Your task to perform on an android device: read, delete, or share a saved page in the chrome app Image 0: 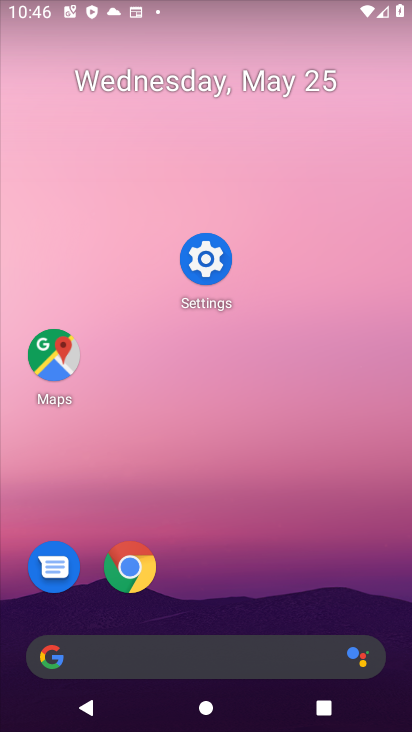
Step 0: click (147, 580)
Your task to perform on an android device: read, delete, or share a saved page in the chrome app Image 1: 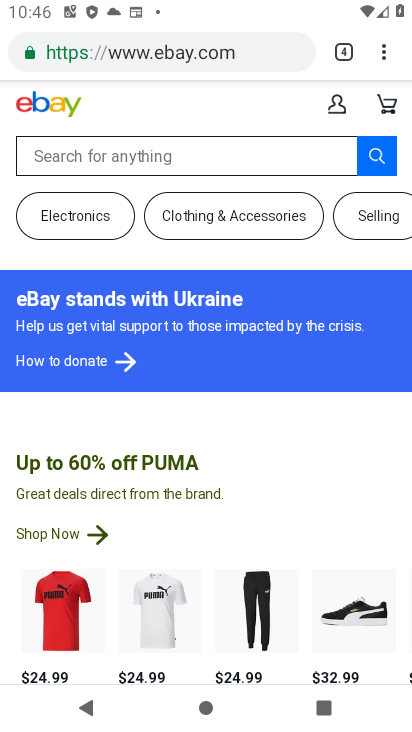
Step 1: click (391, 53)
Your task to perform on an android device: read, delete, or share a saved page in the chrome app Image 2: 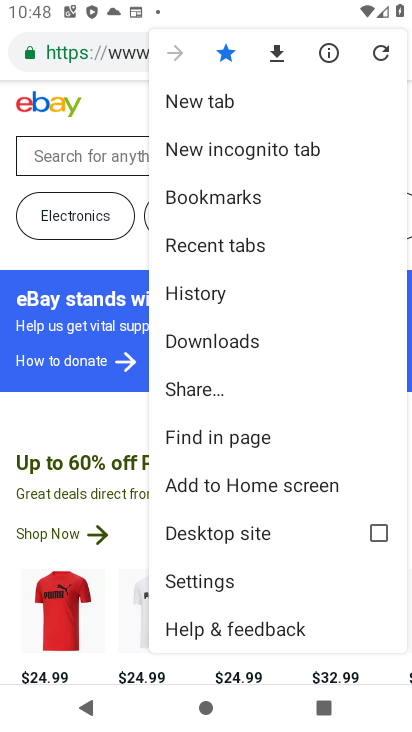
Step 2: click (214, 335)
Your task to perform on an android device: read, delete, or share a saved page in the chrome app Image 3: 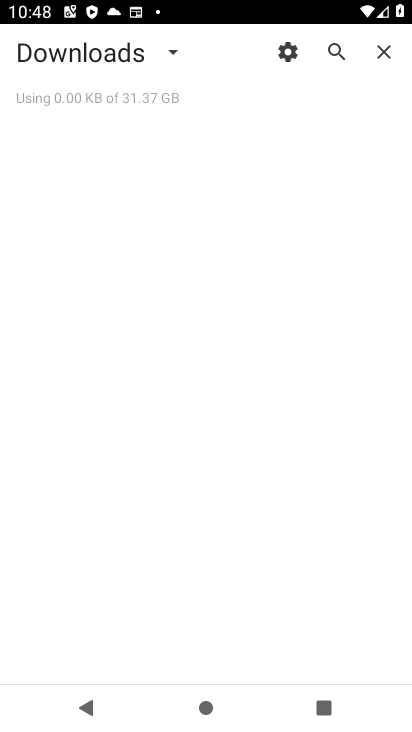
Step 3: task complete